Your task to perform on an android device: allow cookies in the chrome app Image 0: 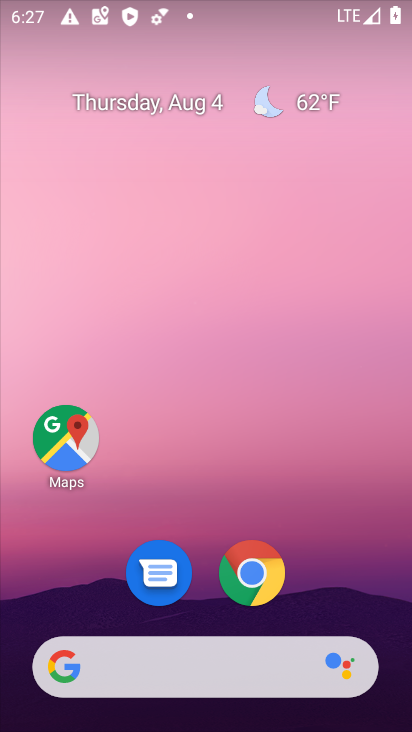
Step 0: drag from (214, 619) to (214, 304)
Your task to perform on an android device: allow cookies in the chrome app Image 1: 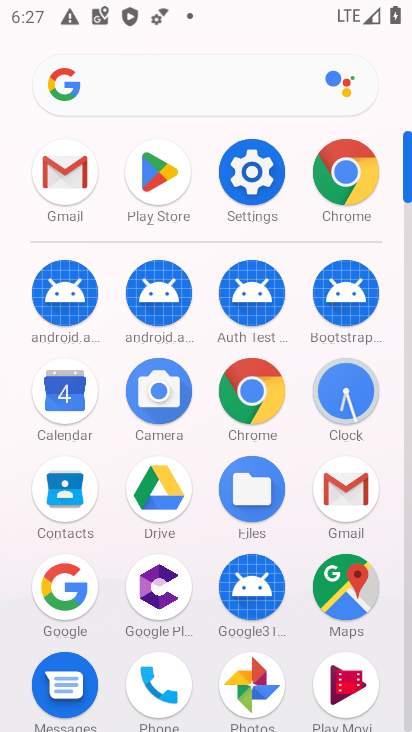
Step 1: click (332, 166)
Your task to perform on an android device: allow cookies in the chrome app Image 2: 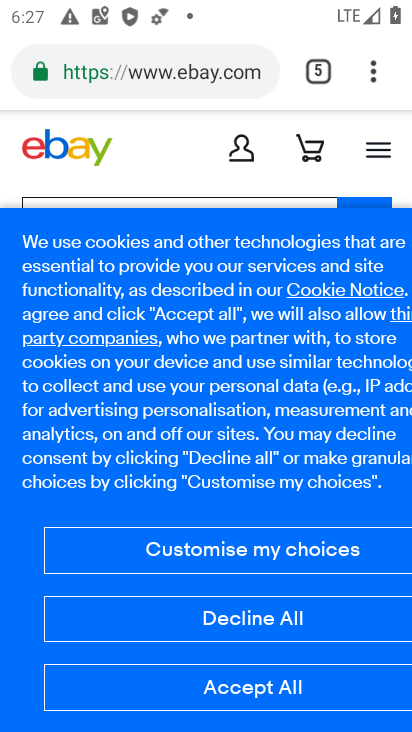
Step 2: drag from (373, 73) to (183, 577)
Your task to perform on an android device: allow cookies in the chrome app Image 3: 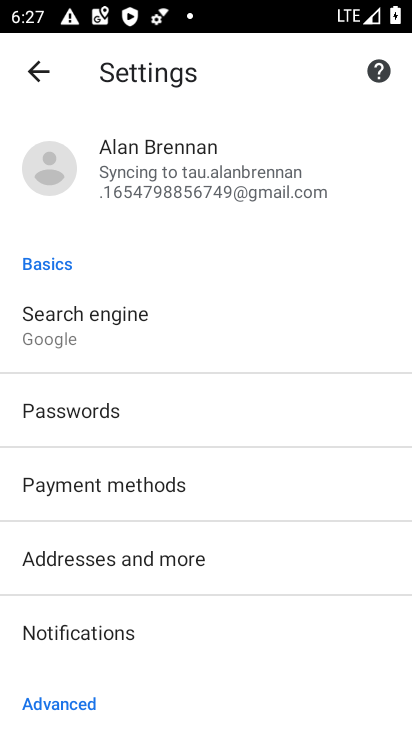
Step 3: drag from (283, 686) to (247, 289)
Your task to perform on an android device: allow cookies in the chrome app Image 4: 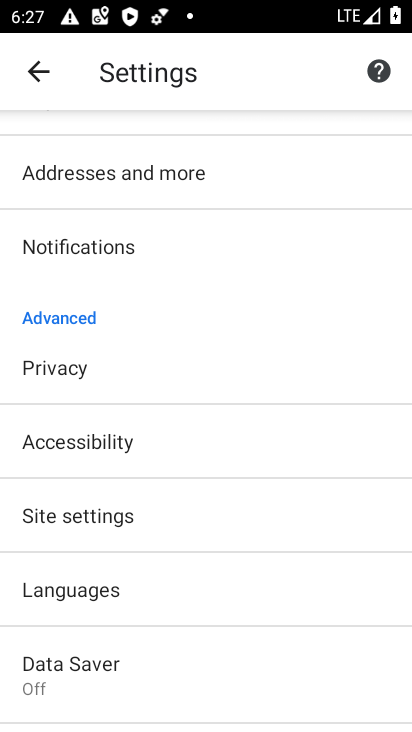
Step 4: click (51, 523)
Your task to perform on an android device: allow cookies in the chrome app Image 5: 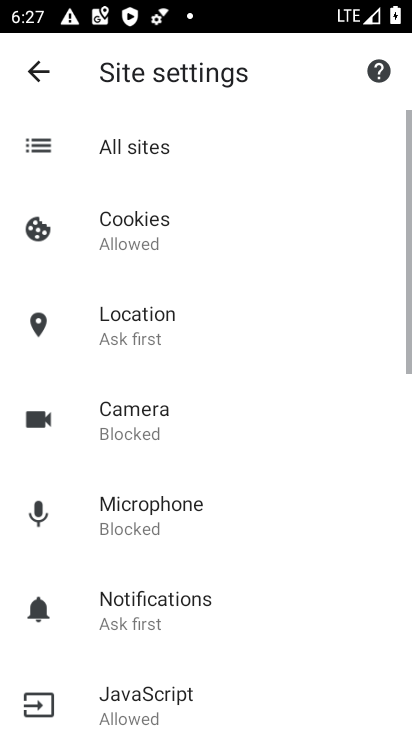
Step 5: click (134, 217)
Your task to perform on an android device: allow cookies in the chrome app Image 6: 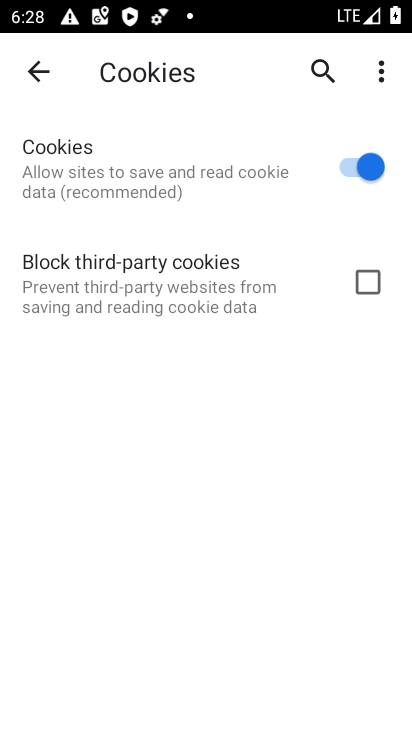
Step 6: task complete